Your task to perform on an android device: See recent photos Image 0: 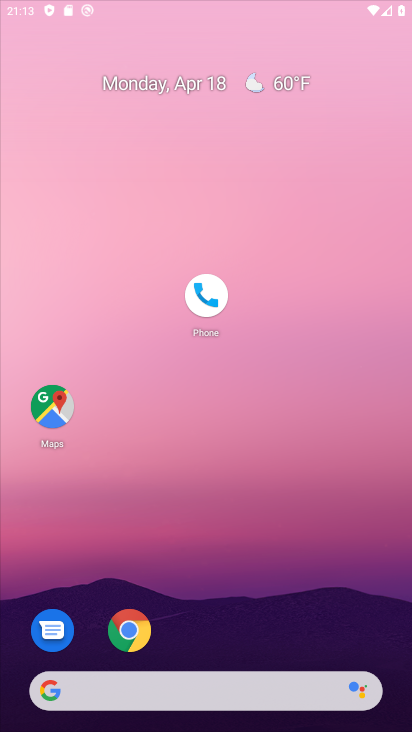
Step 0: click (265, 105)
Your task to perform on an android device: See recent photos Image 1: 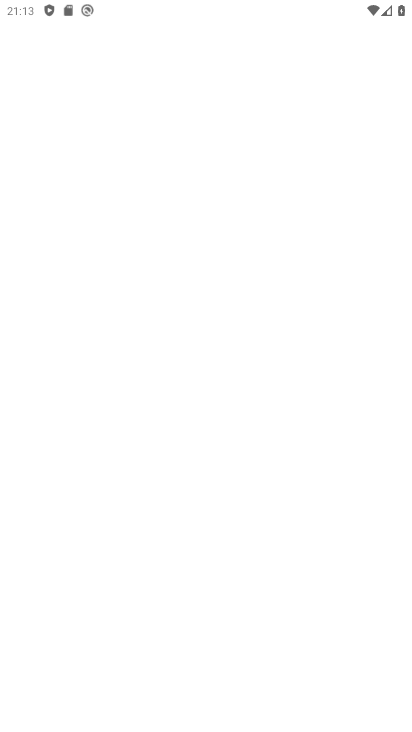
Step 1: press home button
Your task to perform on an android device: See recent photos Image 2: 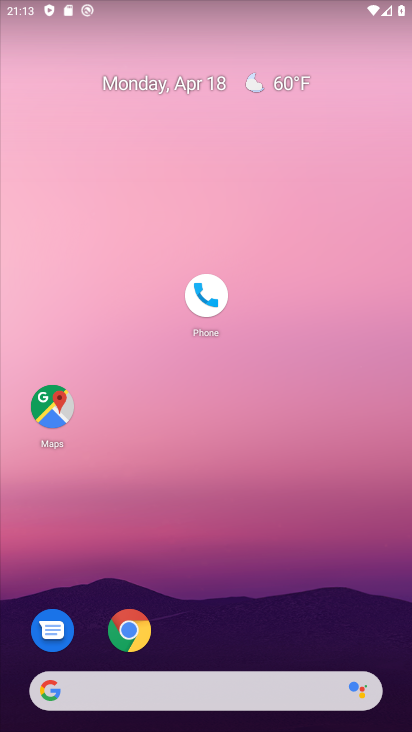
Step 2: drag from (368, 622) to (287, 135)
Your task to perform on an android device: See recent photos Image 3: 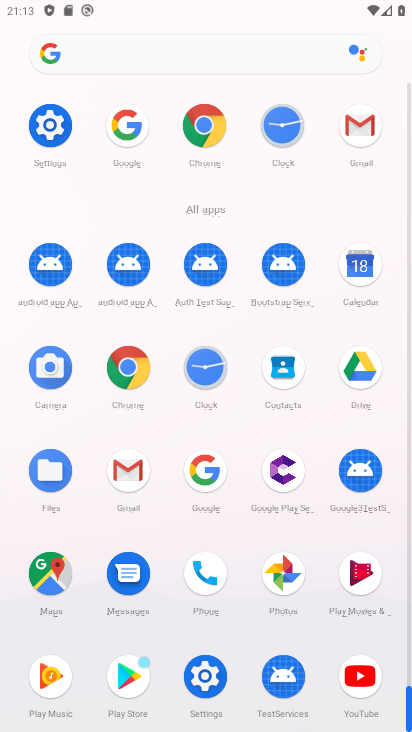
Step 3: click (288, 576)
Your task to perform on an android device: See recent photos Image 4: 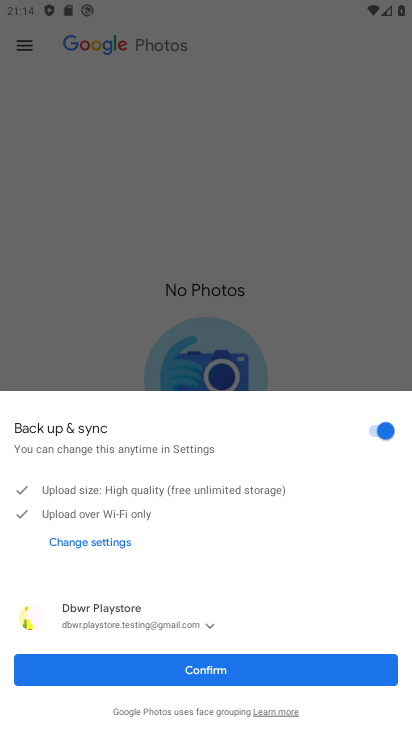
Step 4: click (205, 674)
Your task to perform on an android device: See recent photos Image 5: 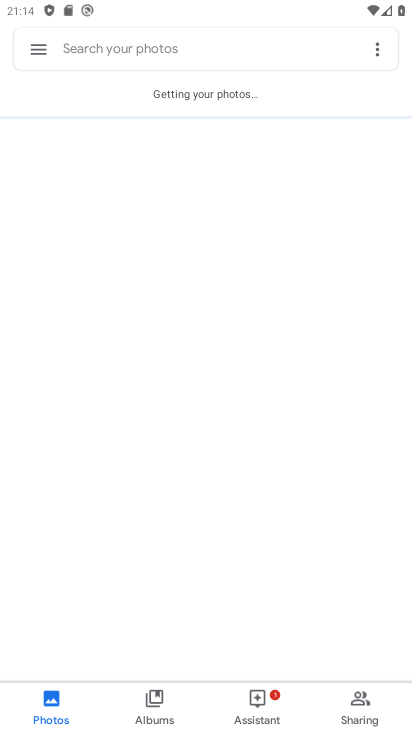
Step 5: click (35, 45)
Your task to perform on an android device: See recent photos Image 6: 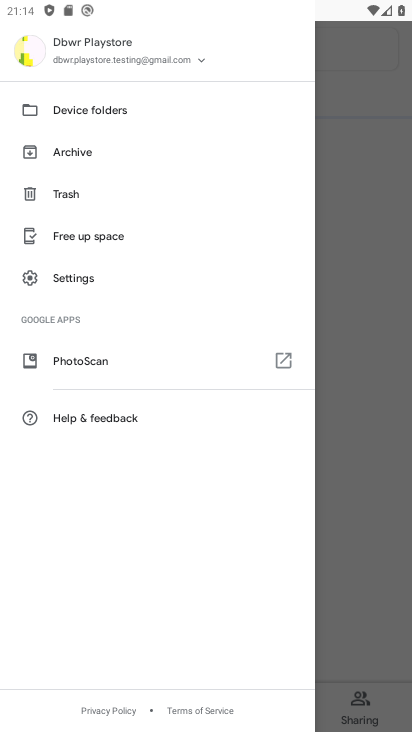
Step 6: click (344, 208)
Your task to perform on an android device: See recent photos Image 7: 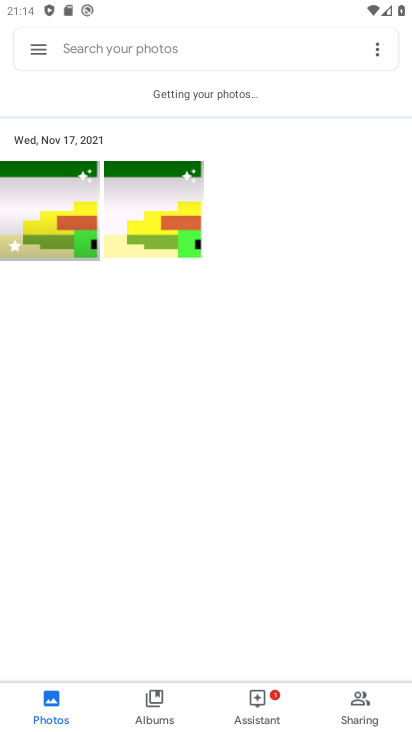
Step 7: click (76, 203)
Your task to perform on an android device: See recent photos Image 8: 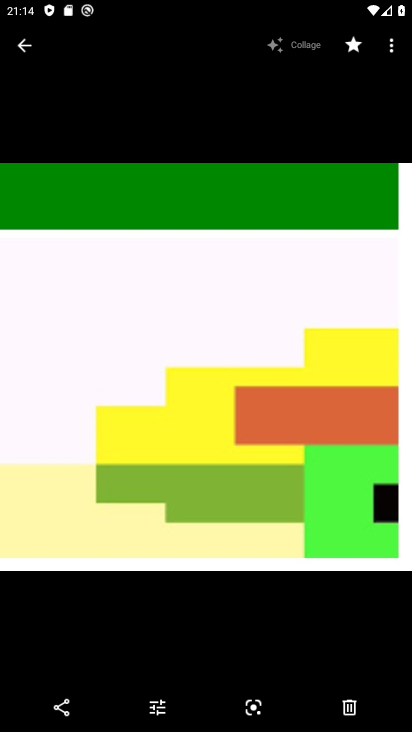
Step 8: task complete